Your task to perform on an android device: Open Android settings Image 0: 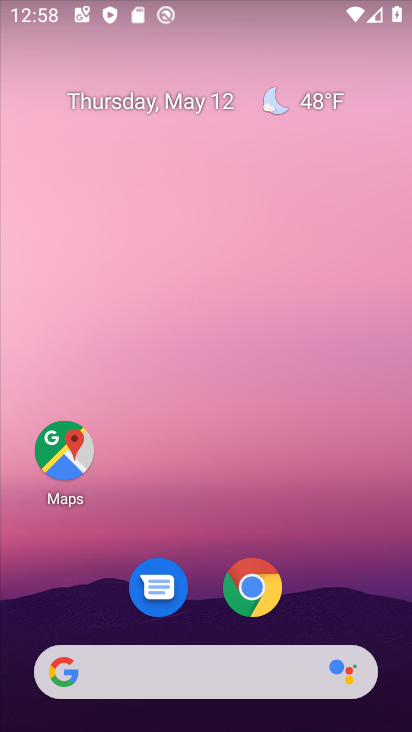
Step 0: drag from (177, 643) to (198, 439)
Your task to perform on an android device: Open Android settings Image 1: 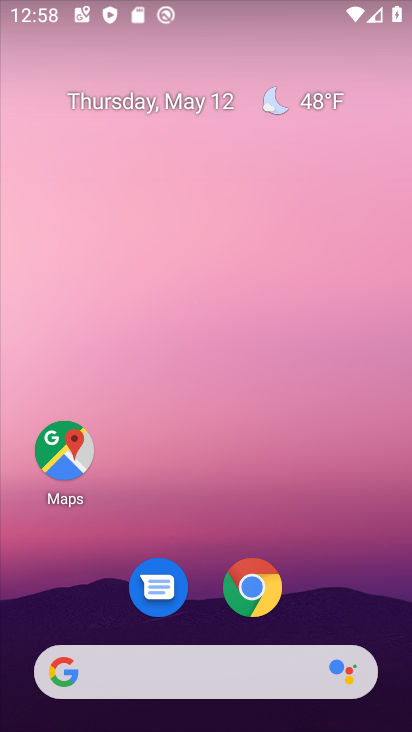
Step 1: drag from (212, 672) to (279, 149)
Your task to perform on an android device: Open Android settings Image 2: 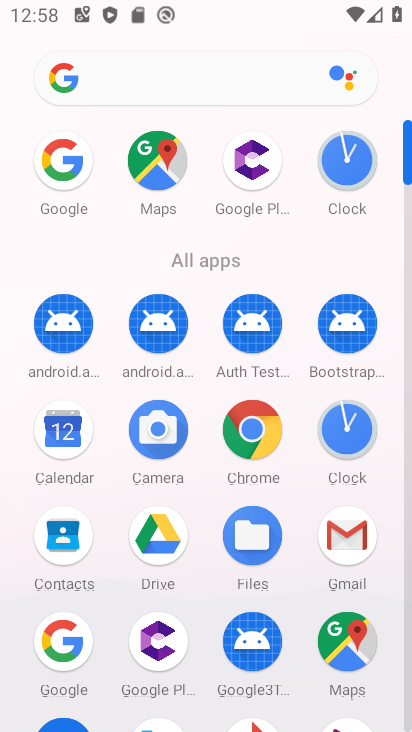
Step 2: drag from (177, 573) to (273, 63)
Your task to perform on an android device: Open Android settings Image 3: 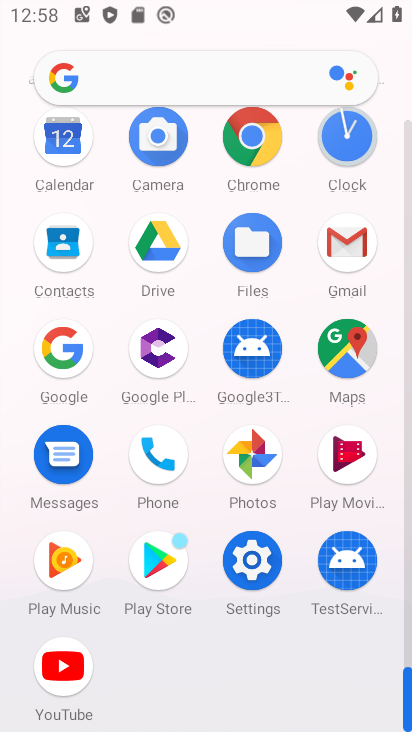
Step 3: click (260, 575)
Your task to perform on an android device: Open Android settings Image 4: 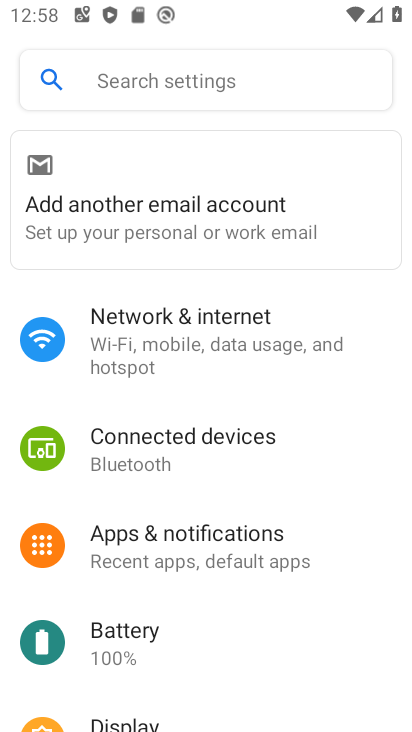
Step 4: drag from (255, 584) to (312, 190)
Your task to perform on an android device: Open Android settings Image 5: 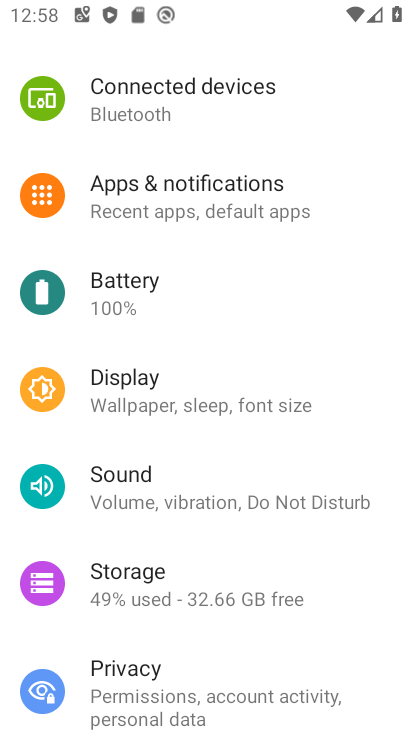
Step 5: drag from (199, 556) to (288, 116)
Your task to perform on an android device: Open Android settings Image 6: 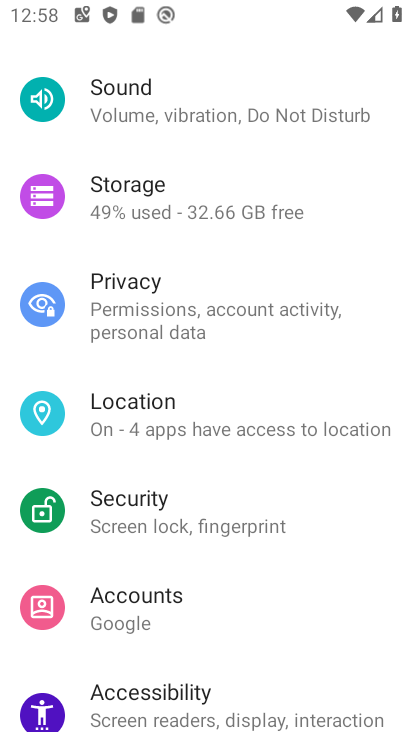
Step 6: drag from (164, 647) to (236, 202)
Your task to perform on an android device: Open Android settings Image 7: 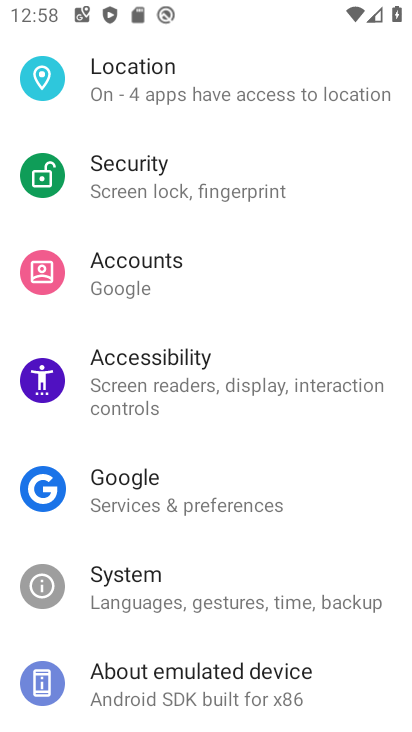
Step 7: drag from (213, 566) to (258, 269)
Your task to perform on an android device: Open Android settings Image 8: 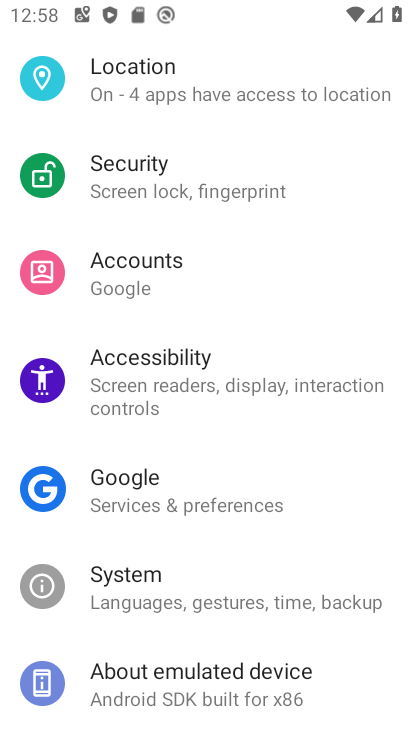
Step 8: click (193, 687)
Your task to perform on an android device: Open Android settings Image 9: 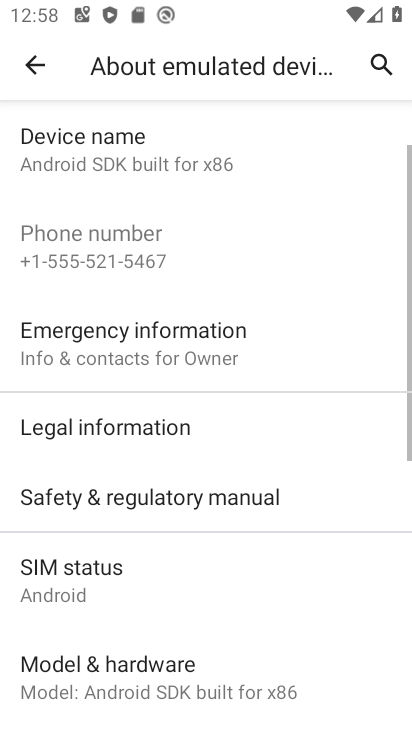
Step 9: drag from (200, 586) to (257, 305)
Your task to perform on an android device: Open Android settings Image 10: 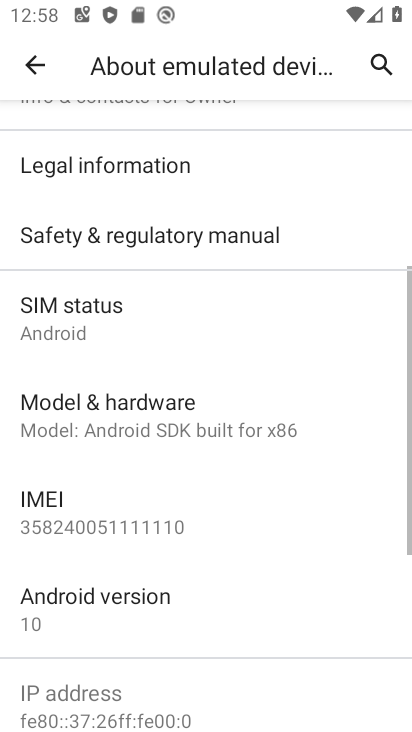
Step 10: click (178, 620)
Your task to perform on an android device: Open Android settings Image 11: 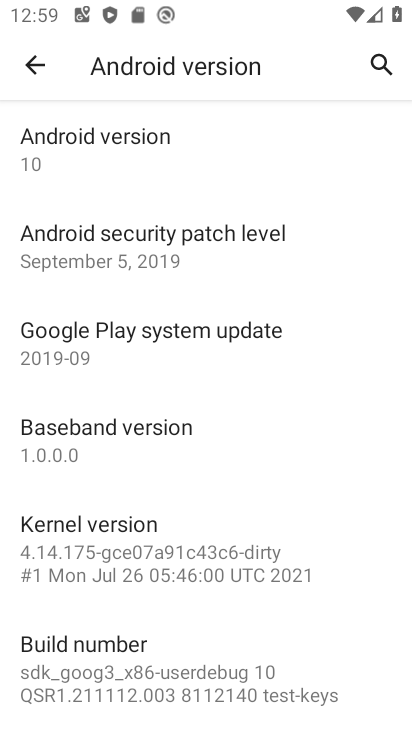
Step 11: task complete